Your task to perform on an android device: Find the nearest electronics store that's open now Image 0: 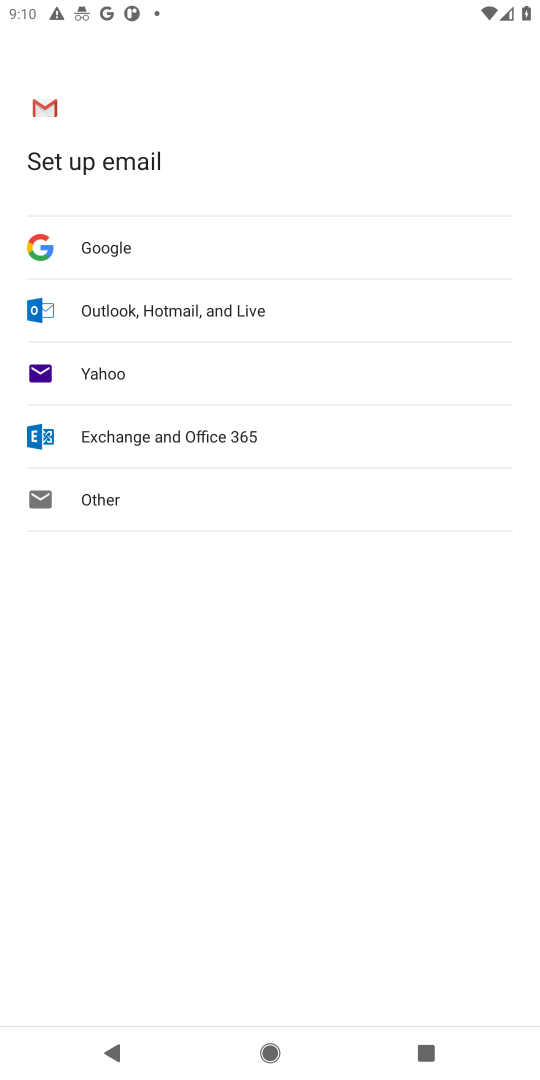
Step 0: press home button
Your task to perform on an android device: Find the nearest electronics store that's open now Image 1: 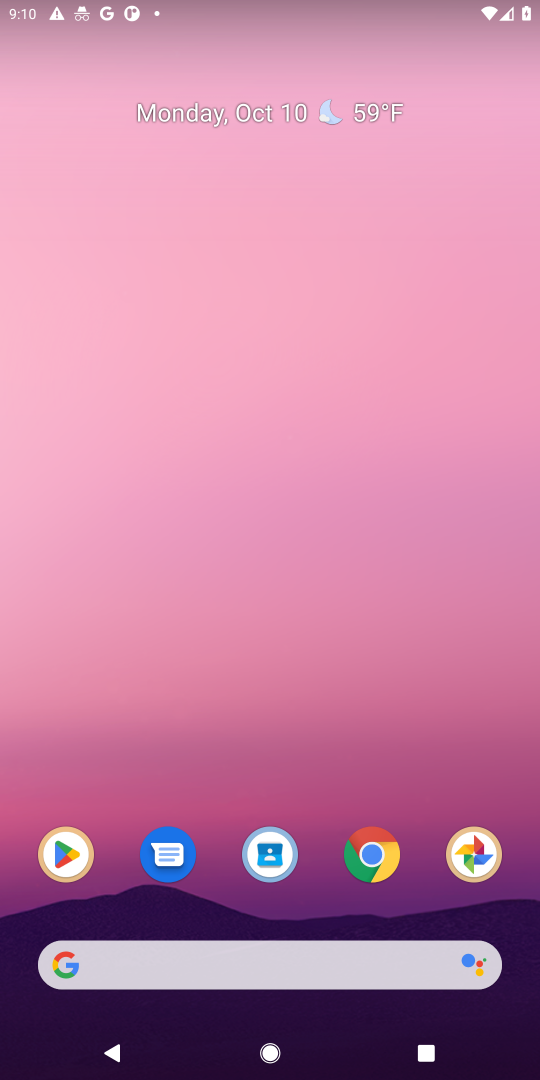
Step 1: click (369, 855)
Your task to perform on an android device: Find the nearest electronics store that's open now Image 2: 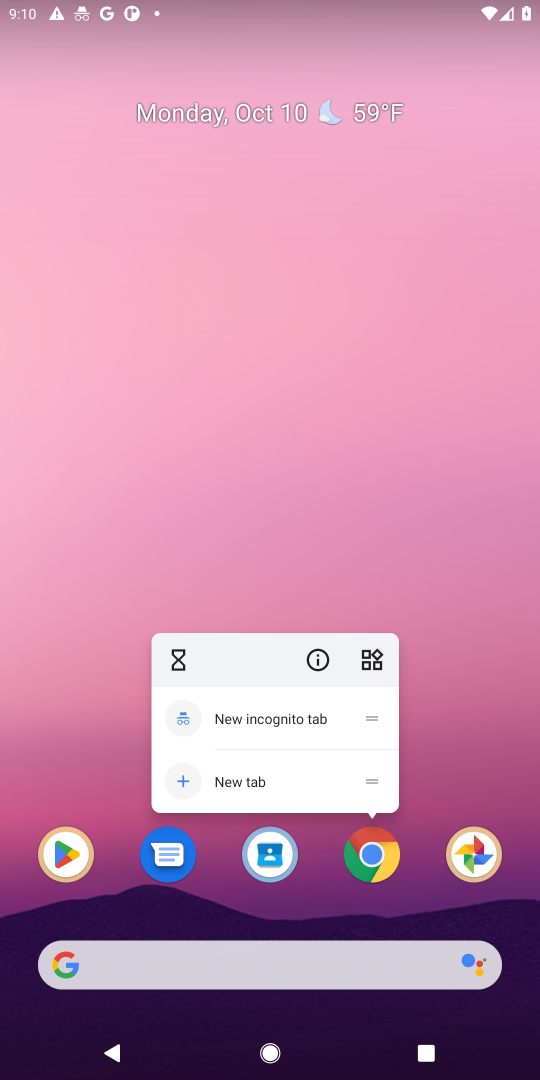
Step 2: click (369, 857)
Your task to perform on an android device: Find the nearest electronics store that's open now Image 3: 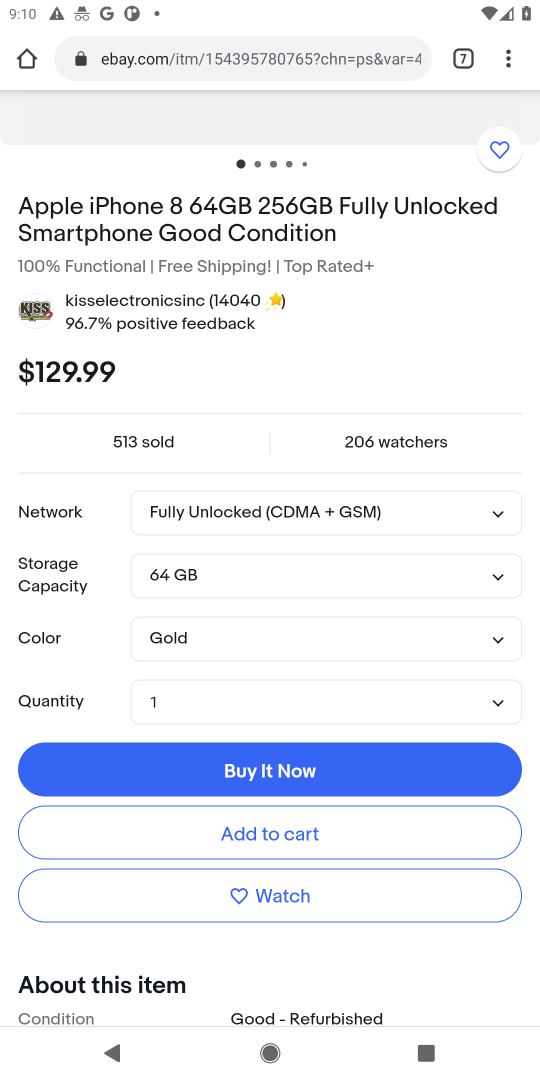
Step 3: click (306, 60)
Your task to perform on an android device: Find the nearest electronics store that's open now Image 4: 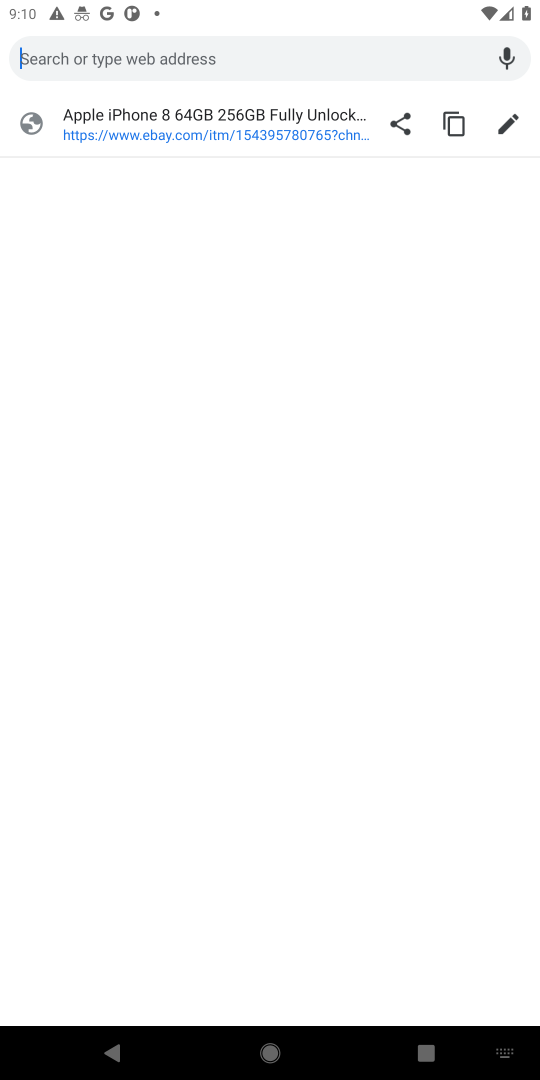
Step 4: type "nearest electronics store that's open now"
Your task to perform on an android device: Find the nearest electronics store that's open now Image 5: 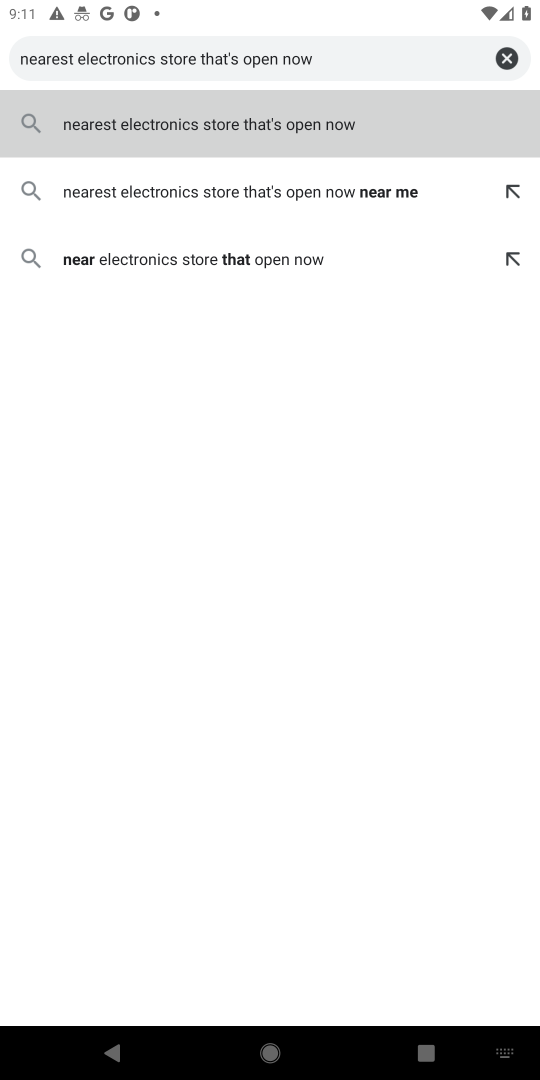
Step 5: press enter
Your task to perform on an android device: Find the nearest electronics store that's open now Image 6: 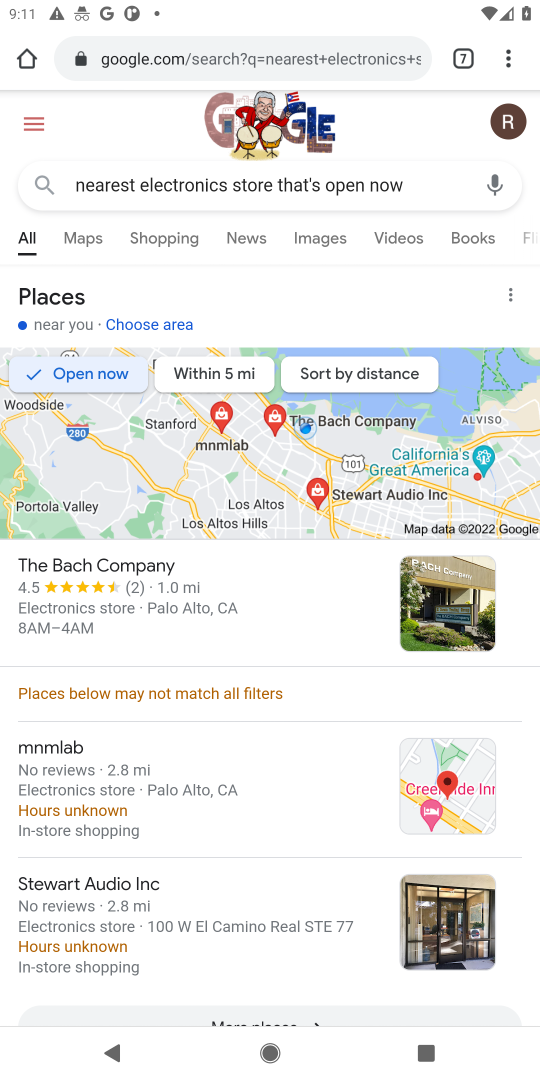
Step 6: drag from (303, 929) to (426, 478)
Your task to perform on an android device: Find the nearest electronics store that's open now Image 7: 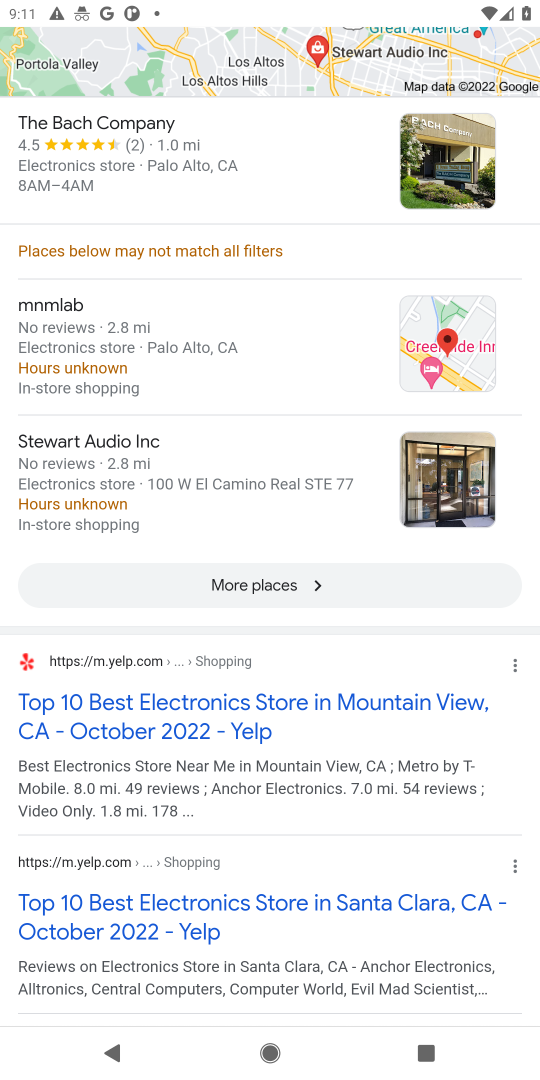
Step 7: click (282, 581)
Your task to perform on an android device: Find the nearest electronics store that's open now Image 8: 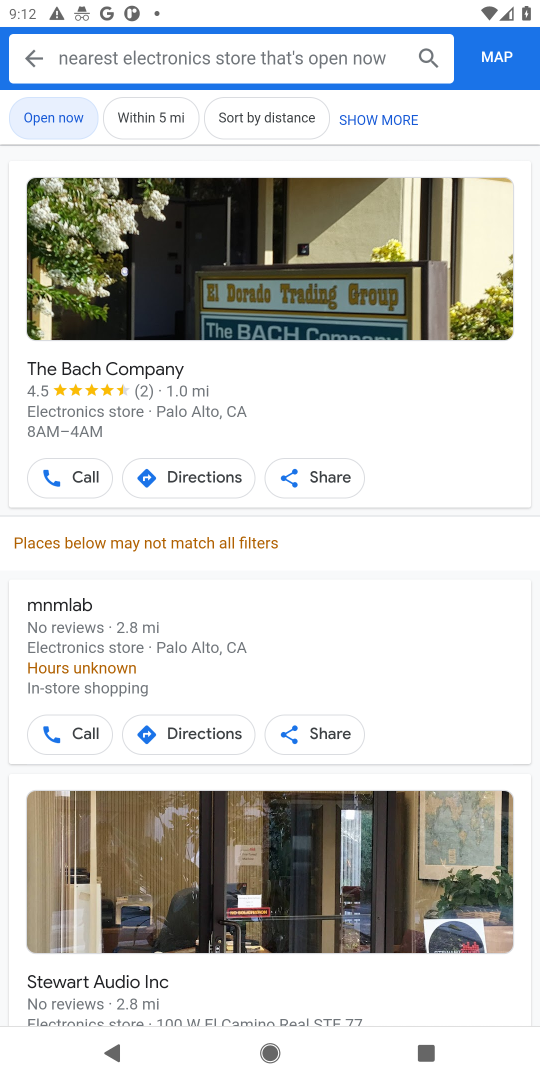
Step 8: task complete